Your task to perform on an android device: see tabs open on other devices in the chrome app Image 0: 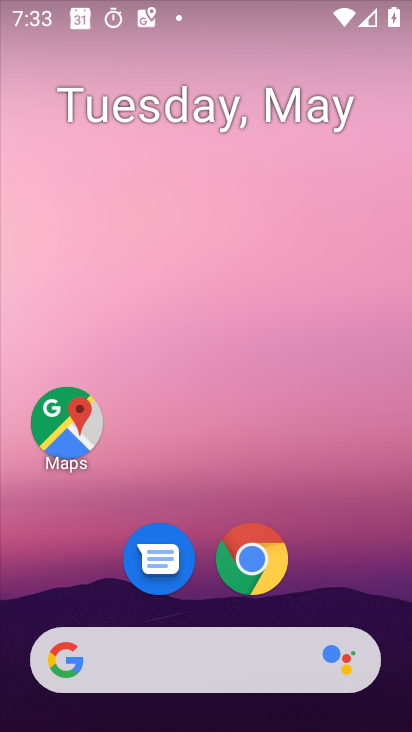
Step 0: drag from (380, 580) to (208, 56)
Your task to perform on an android device: see tabs open on other devices in the chrome app Image 1: 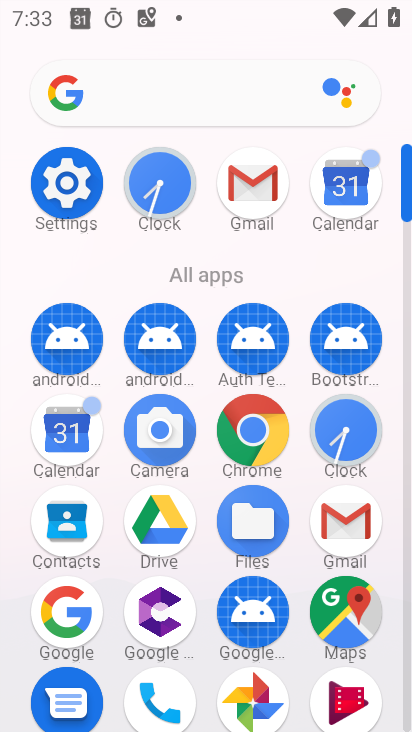
Step 1: click (234, 430)
Your task to perform on an android device: see tabs open on other devices in the chrome app Image 2: 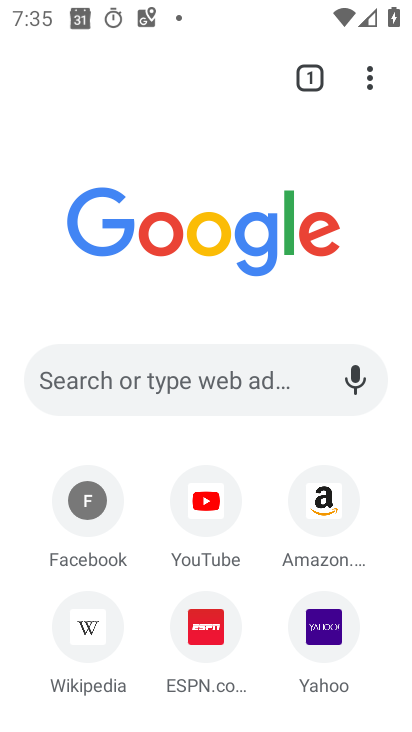
Step 2: task complete